Your task to perform on an android device: see sites visited before in the chrome app Image 0: 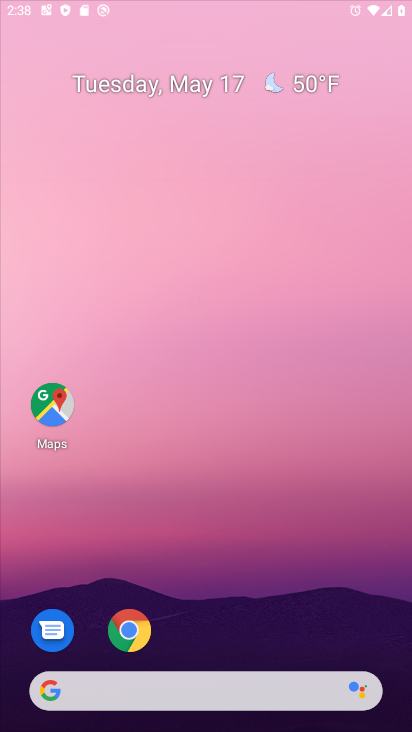
Step 0: click (407, 455)
Your task to perform on an android device: see sites visited before in the chrome app Image 1: 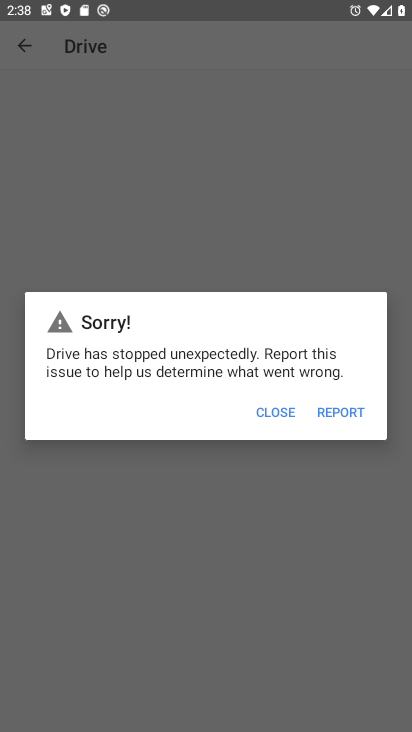
Step 1: press home button
Your task to perform on an android device: see sites visited before in the chrome app Image 2: 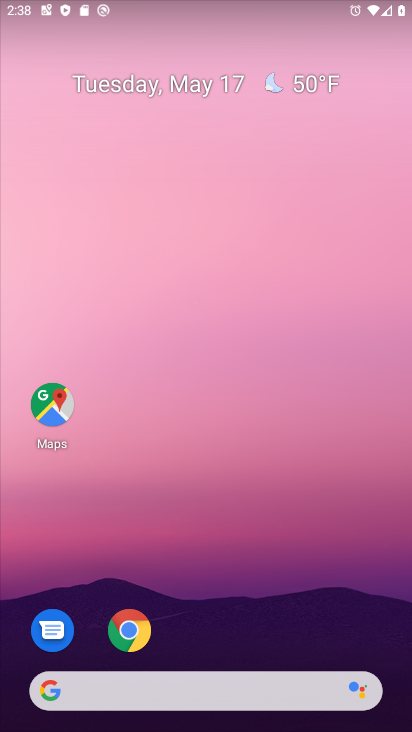
Step 2: drag from (141, 668) to (285, 338)
Your task to perform on an android device: see sites visited before in the chrome app Image 3: 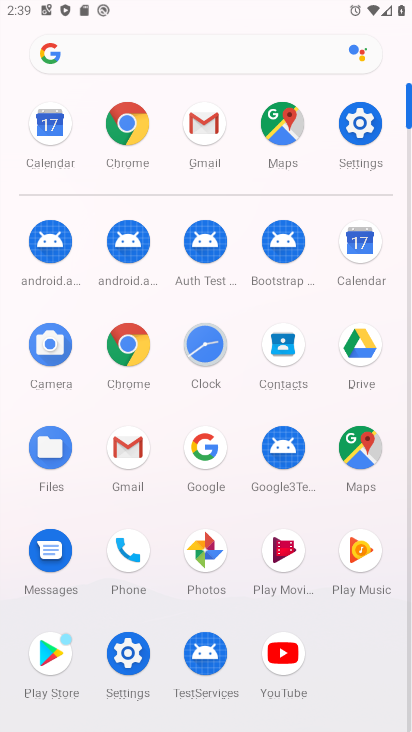
Step 3: click (116, 341)
Your task to perform on an android device: see sites visited before in the chrome app Image 4: 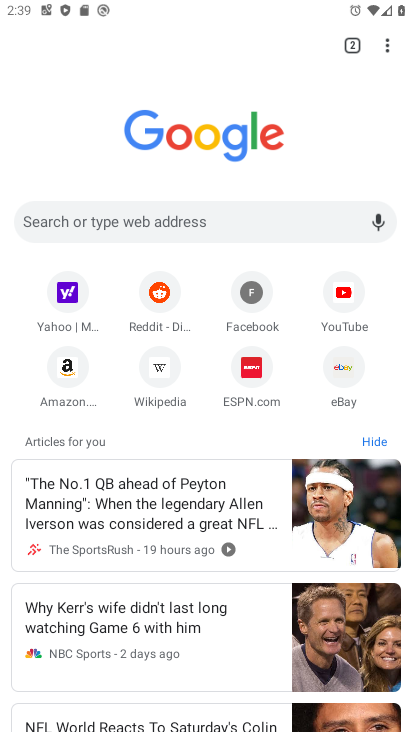
Step 4: task complete